Your task to perform on an android device: turn off smart reply in the gmail app Image 0: 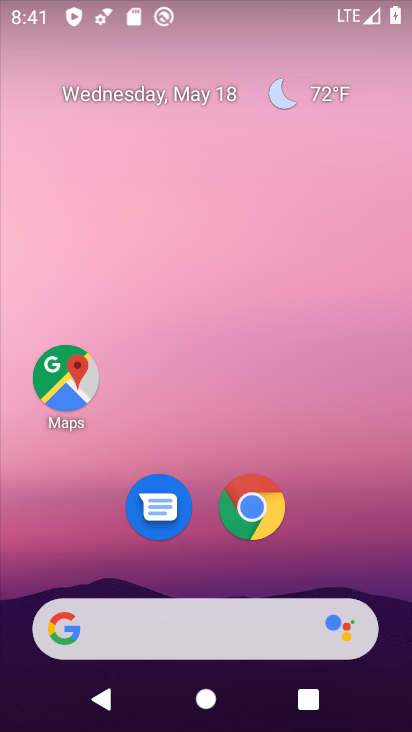
Step 0: drag from (210, 451) to (195, 34)
Your task to perform on an android device: turn off smart reply in the gmail app Image 1: 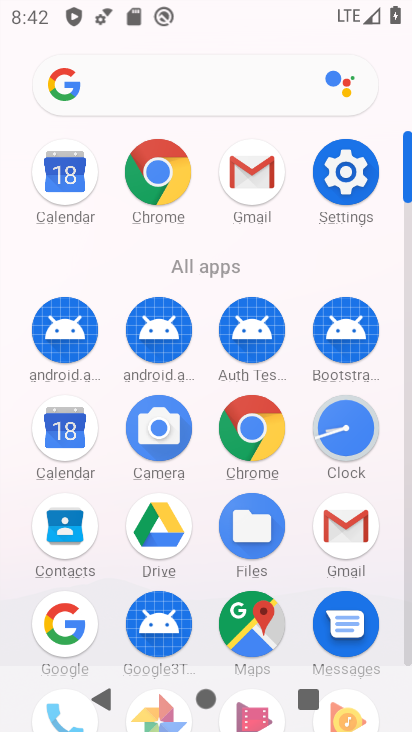
Step 1: click (247, 168)
Your task to perform on an android device: turn off smart reply in the gmail app Image 2: 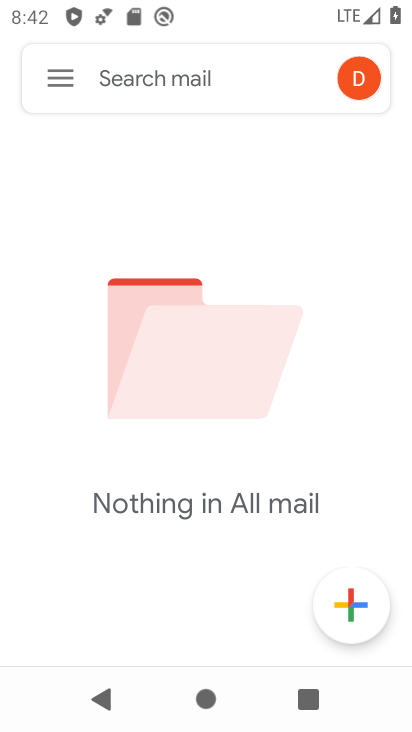
Step 2: click (60, 82)
Your task to perform on an android device: turn off smart reply in the gmail app Image 3: 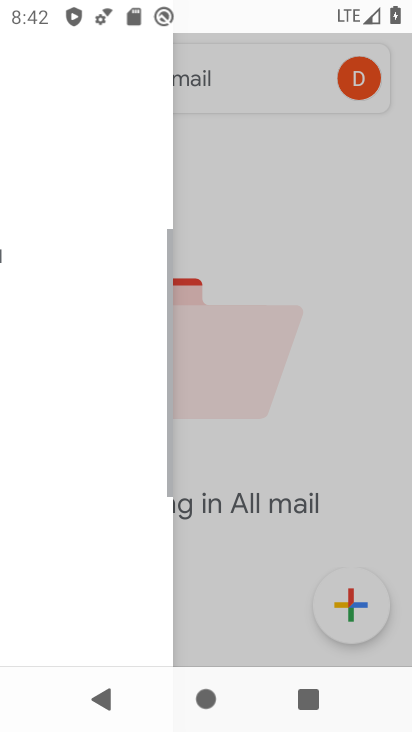
Step 3: click (60, 82)
Your task to perform on an android device: turn off smart reply in the gmail app Image 4: 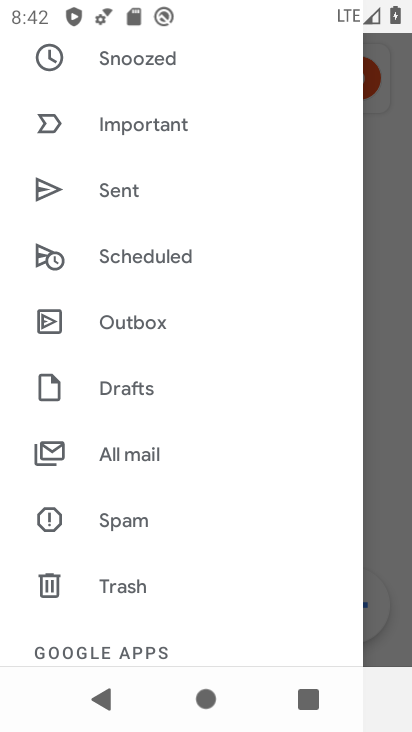
Step 4: drag from (221, 604) to (226, 455)
Your task to perform on an android device: turn off smart reply in the gmail app Image 5: 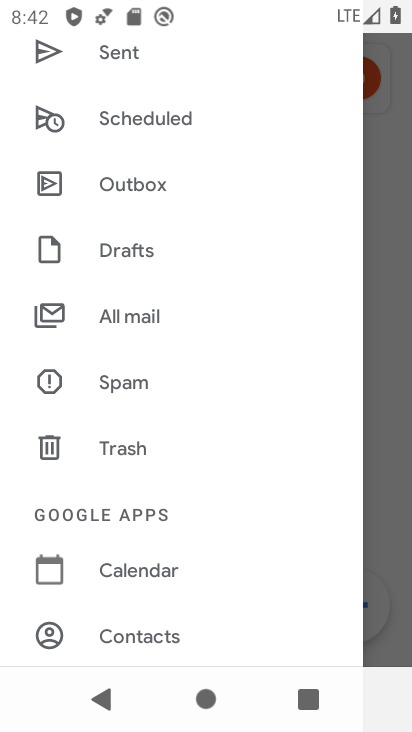
Step 5: drag from (126, 720) to (126, 679)
Your task to perform on an android device: turn off smart reply in the gmail app Image 6: 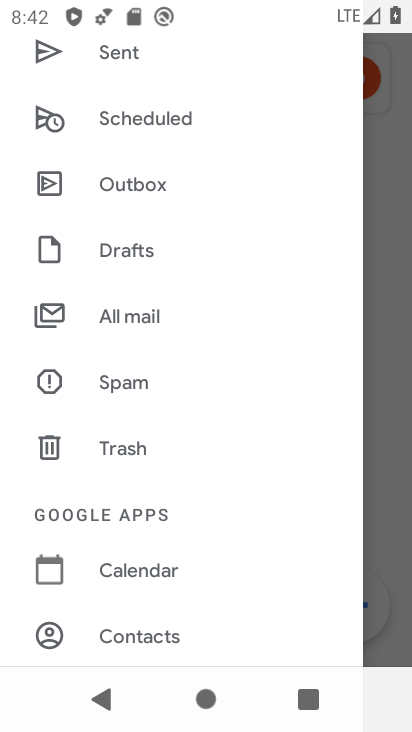
Step 6: drag from (133, 636) to (155, 477)
Your task to perform on an android device: turn off smart reply in the gmail app Image 7: 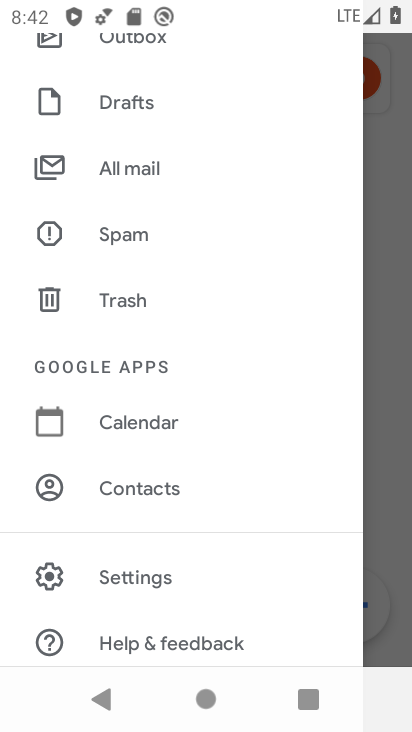
Step 7: drag from (154, 475) to (189, 310)
Your task to perform on an android device: turn off smart reply in the gmail app Image 8: 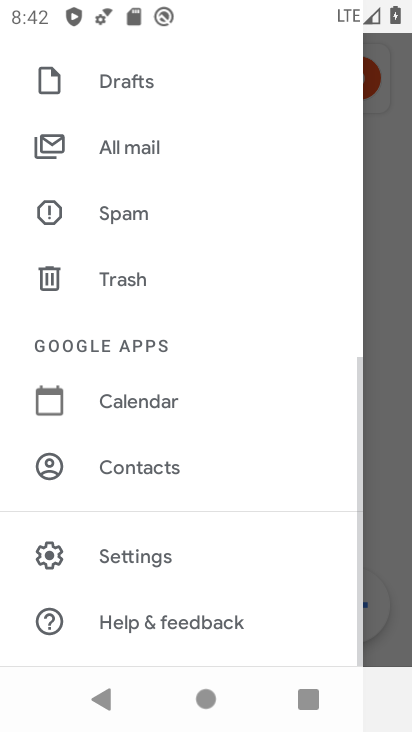
Step 8: click (174, 576)
Your task to perform on an android device: turn off smart reply in the gmail app Image 9: 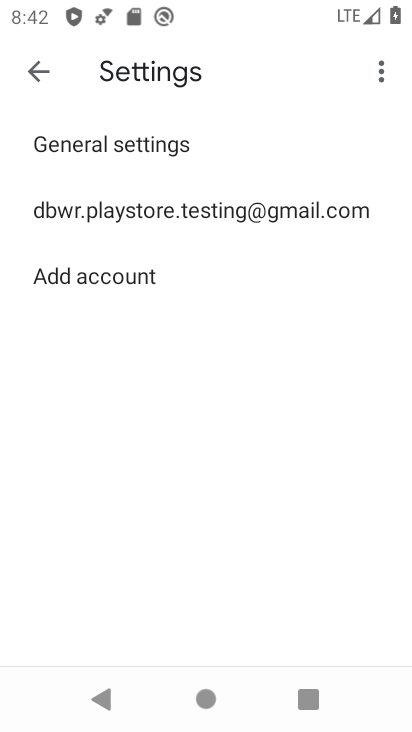
Step 9: click (218, 204)
Your task to perform on an android device: turn off smart reply in the gmail app Image 10: 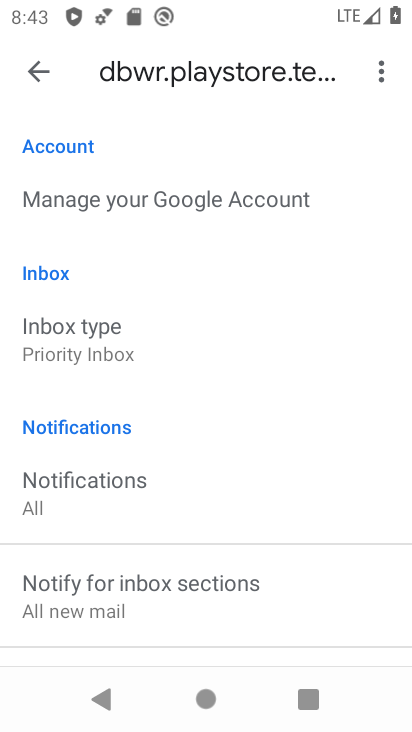
Step 10: drag from (343, 560) to (299, 329)
Your task to perform on an android device: turn off smart reply in the gmail app Image 11: 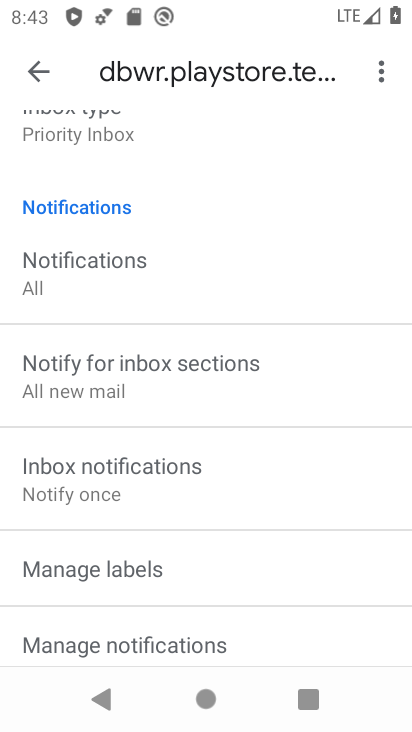
Step 11: drag from (132, 523) to (171, 202)
Your task to perform on an android device: turn off smart reply in the gmail app Image 12: 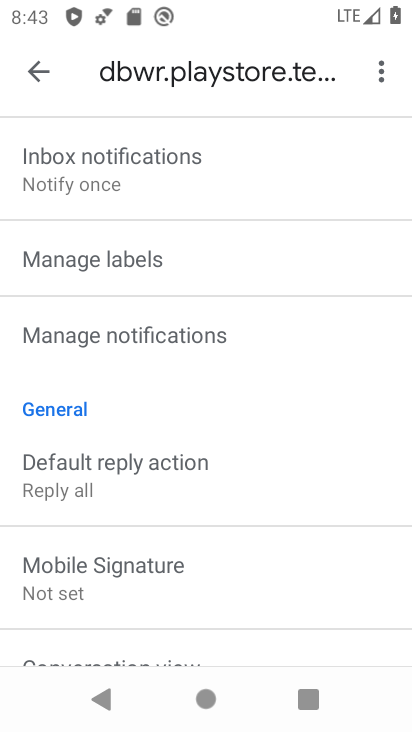
Step 12: drag from (200, 598) to (216, 272)
Your task to perform on an android device: turn off smart reply in the gmail app Image 13: 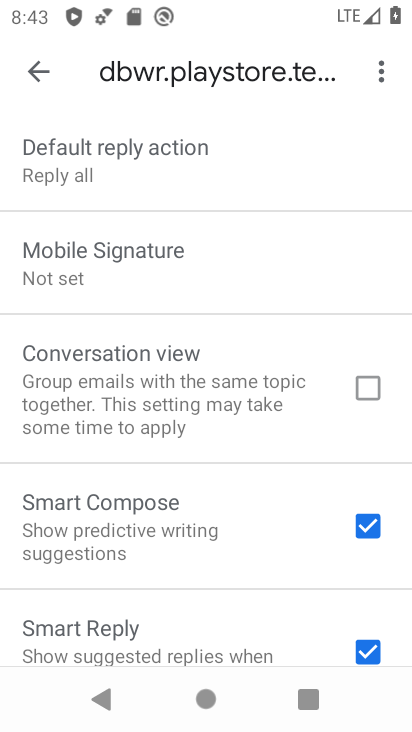
Step 13: drag from (203, 515) to (171, 143)
Your task to perform on an android device: turn off smart reply in the gmail app Image 14: 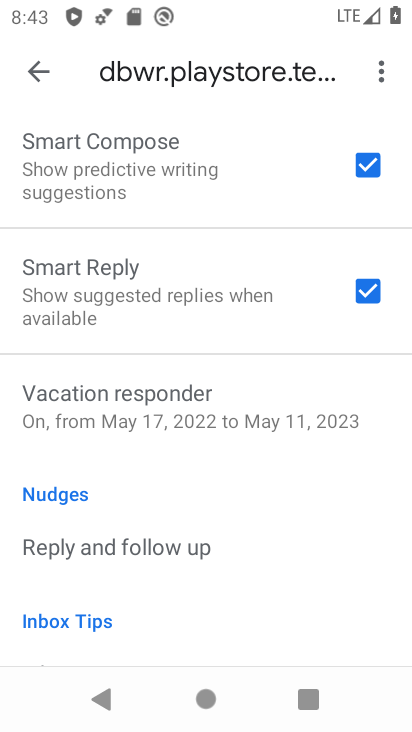
Step 14: click (184, 321)
Your task to perform on an android device: turn off smart reply in the gmail app Image 15: 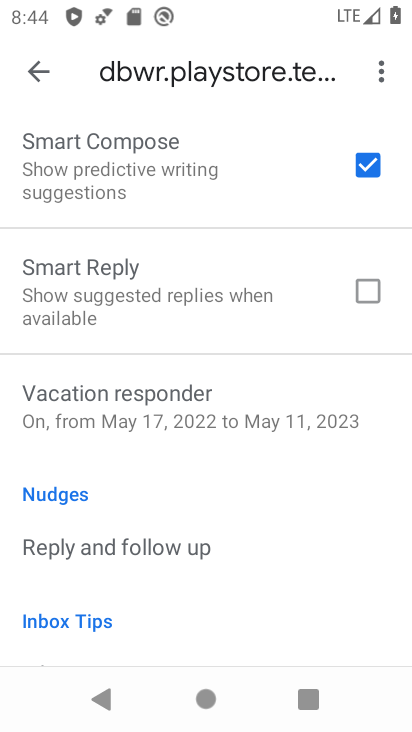
Step 15: task complete